Your task to perform on an android device: toggle notifications settings in the gmail app Image 0: 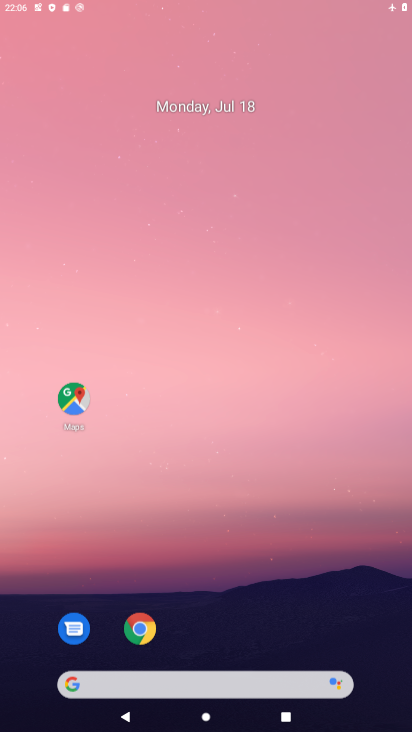
Step 0: click (268, 173)
Your task to perform on an android device: toggle notifications settings in the gmail app Image 1: 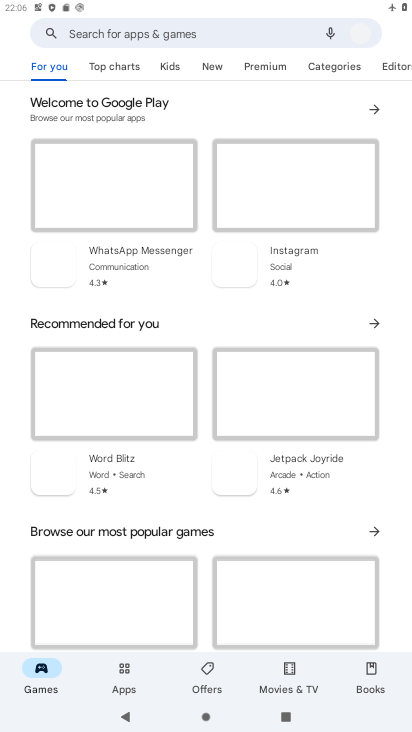
Step 1: press home button
Your task to perform on an android device: toggle notifications settings in the gmail app Image 2: 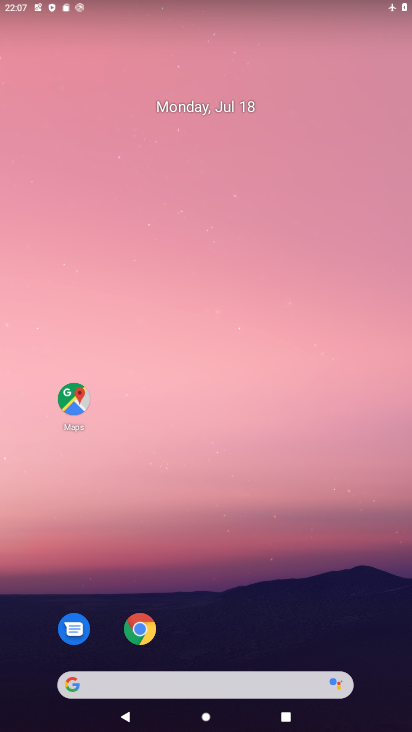
Step 2: drag from (314, 549) to (297, 260)
Your task to perform on an android device: toggle notifications settings in the gmail app Image 3: 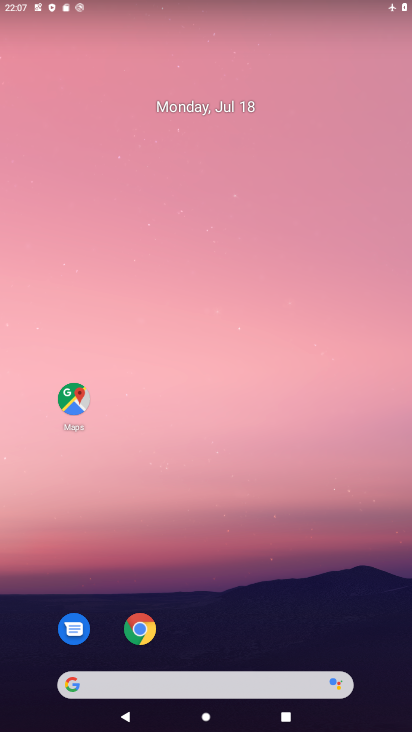
Step 3: drag from (270, 515) to (253, 44)
Your task to perform on an android device: toggle notifications settings in the gmail app Image 4: 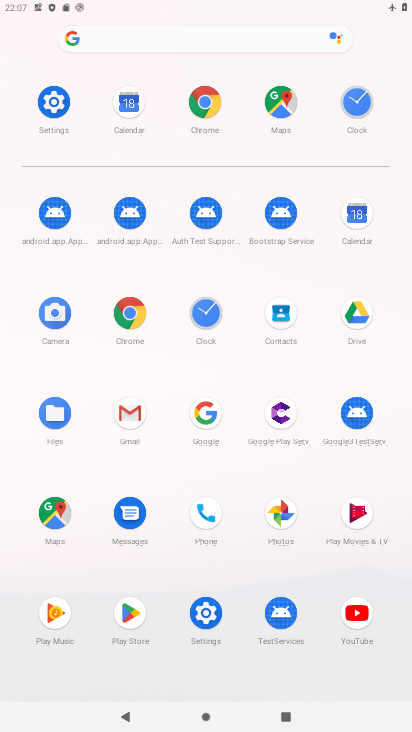
Step 4: click (121, 412)
Your task to perform on an android device: toggle notifications settings in the gmail app Image 5: 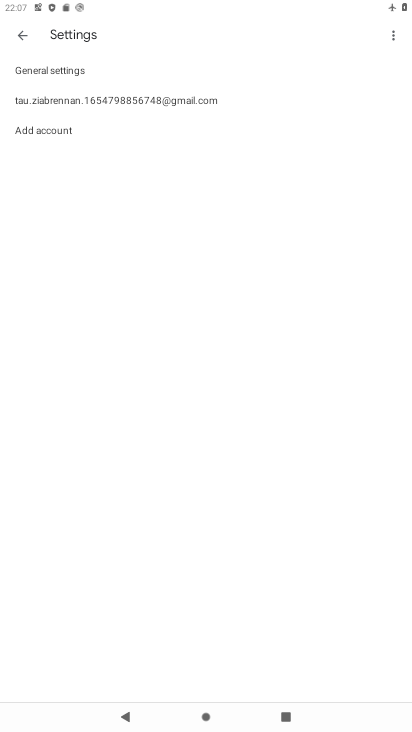
Step 5: click (130, 107)
Your task to perform on an android device: toggle notifications settings in the gmail app Image 6: 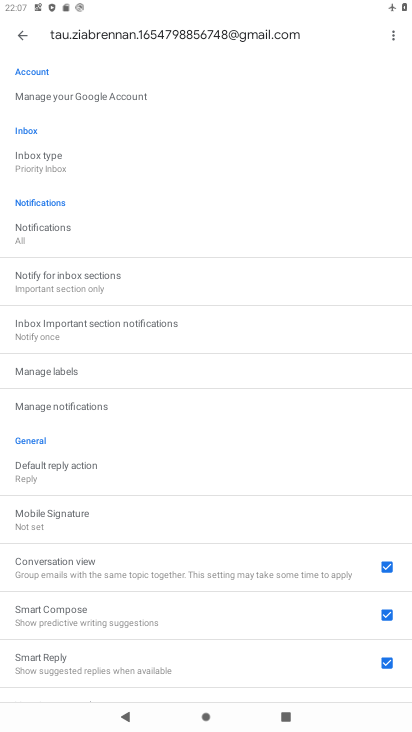
Step 6: click (83, 403)
Your task to perform on an android device: toggle notifications settings in the gmail app Image 7: 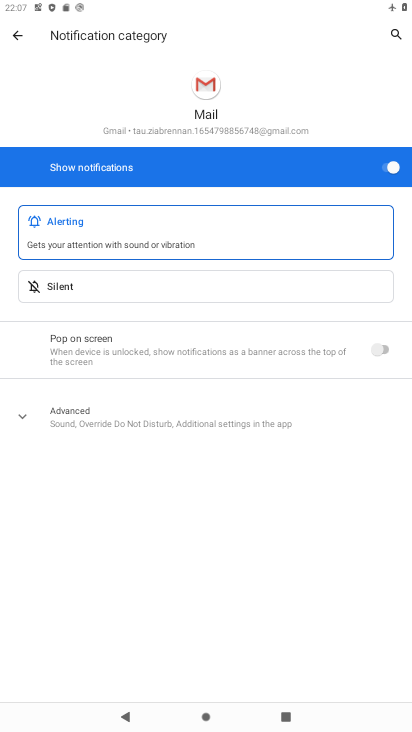
Step 7: click (388, 168)
Your task to perform on an android device: toggle notifications settings in the gmail app Image 8: 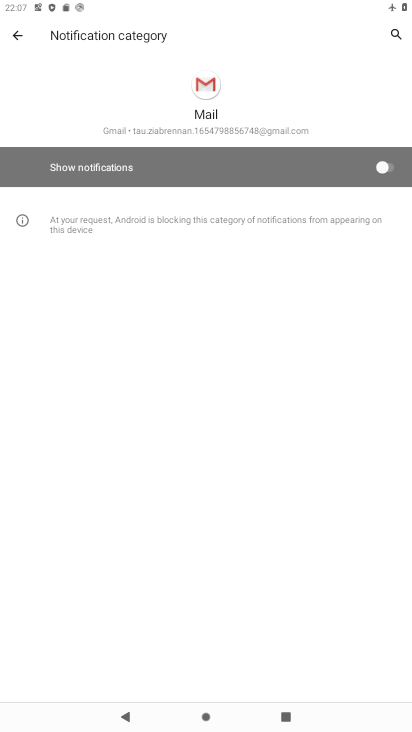
Step 8: task complete